Your task to perform on an android device: Turn on the flashlight Image 0: 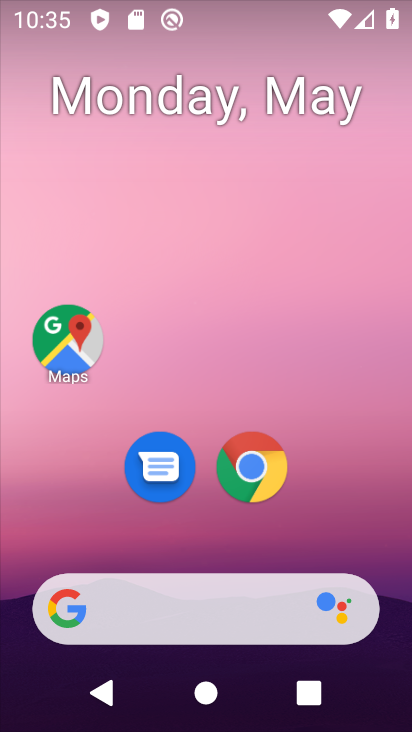
Step 0: drag from (215, 13) to (209, 516)
Your task to perform on an android device: Turn on the flashlight Image 1: 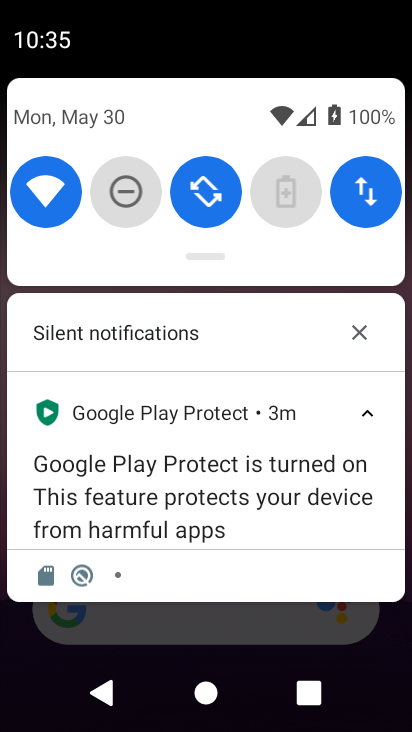
Step 1: drag from (205, 265) to (203, 684)
Your task to perform on an android device: Turn on the flashlight Image 2: 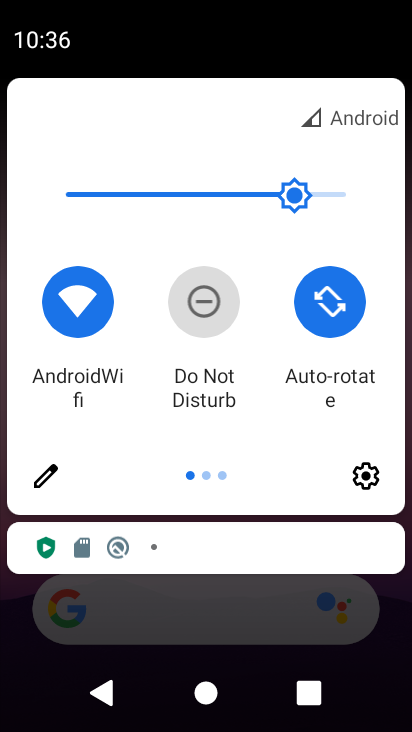
Step 2: click (40, 486)
Your task to perform on an android device: Turn on the flashlight Image 3: 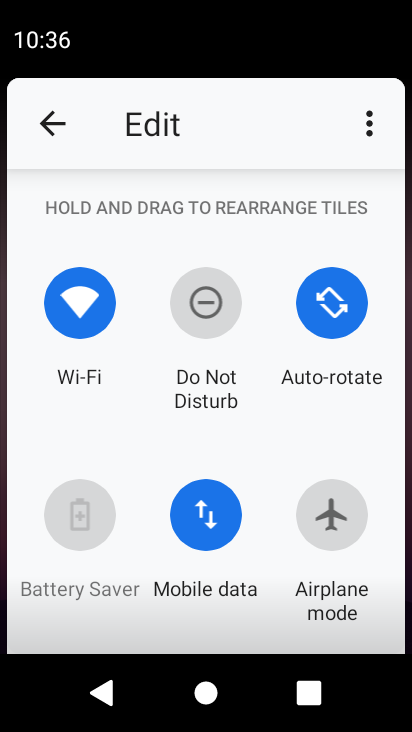
Step 3: task complete